Your task to perform on an android device: Clear the shopping cart on amazon. Add asus zenbook to the cart on amazon Image 0: 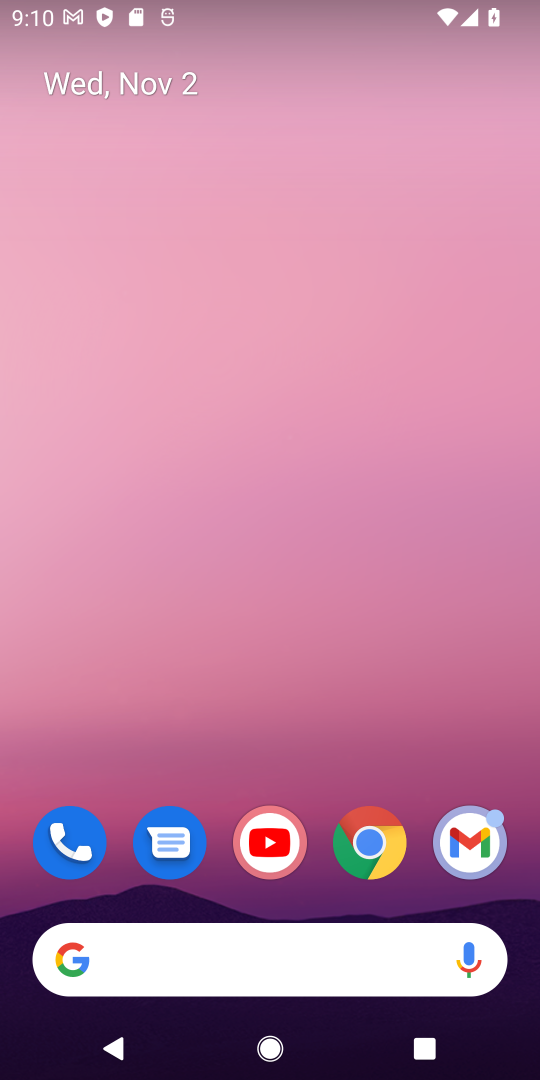
Step 0: drag from (189, 815) to (202, 96)
Your task to perform on an android device: Clear the shopping cart on amazon. Add asus zenbook to the cart on amazon Image 1: 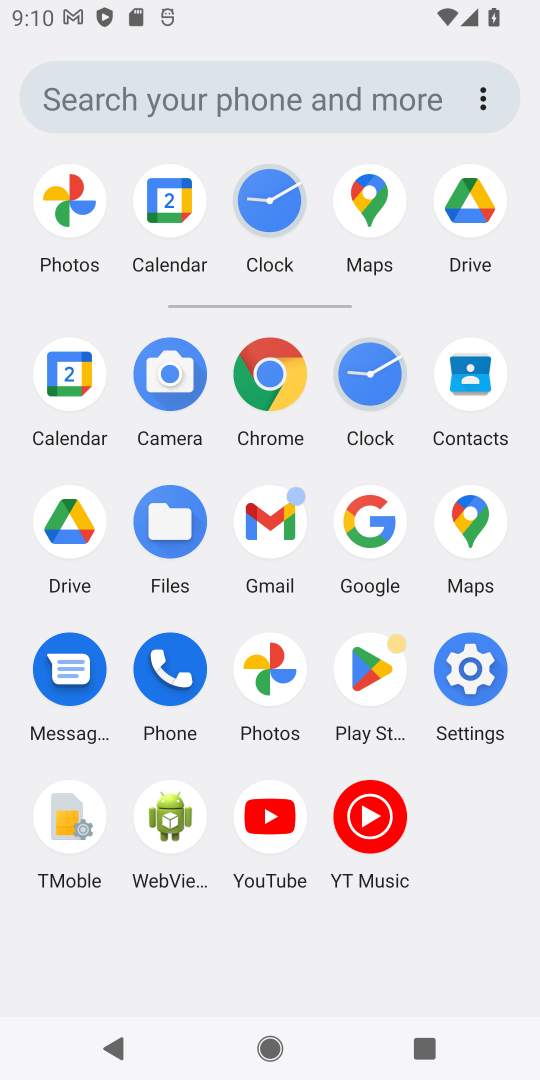
Step 1: click (362, 519)
Your task to perform on an android device: Clear the shopping cart on amazon. Add asus zenbook to the cart on amazon Image 2: 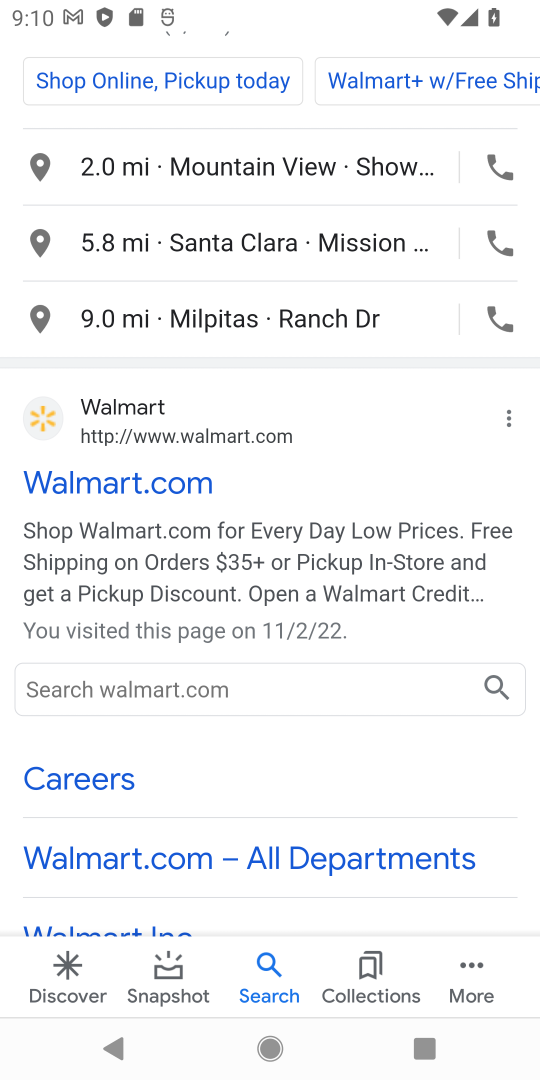
Step 2: drag from (183, 223) to (97, 906)
Your task to perform on an android device: Clear the shopping cart on amazon. Add asus zenbook to the cart on amazon Image 3: 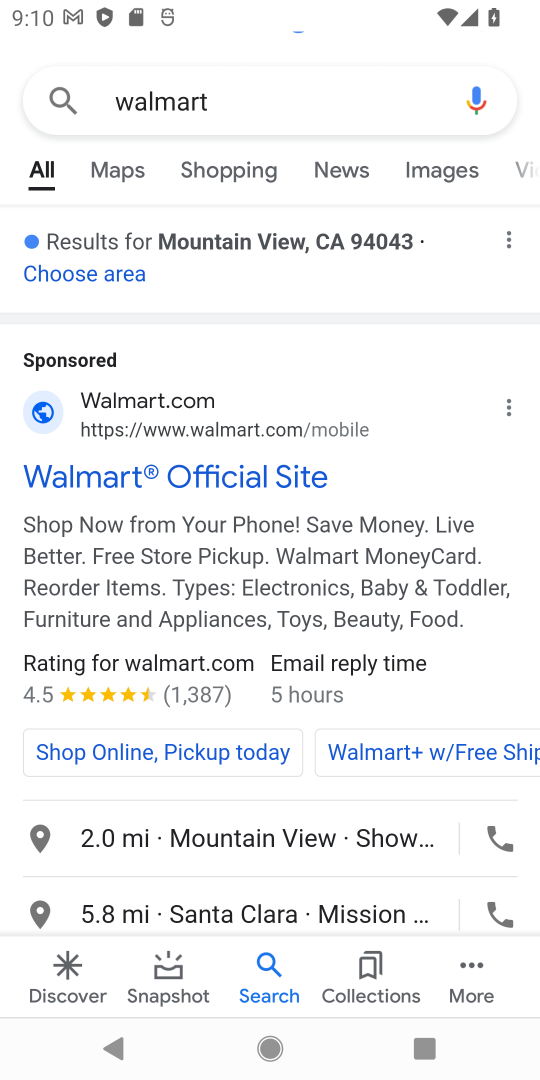
Step 3: click (243, 69)
Your task to perform on an android device: Clear the shopping cart on amazon. Add asus zenbook to the cart on amazon Image 4: 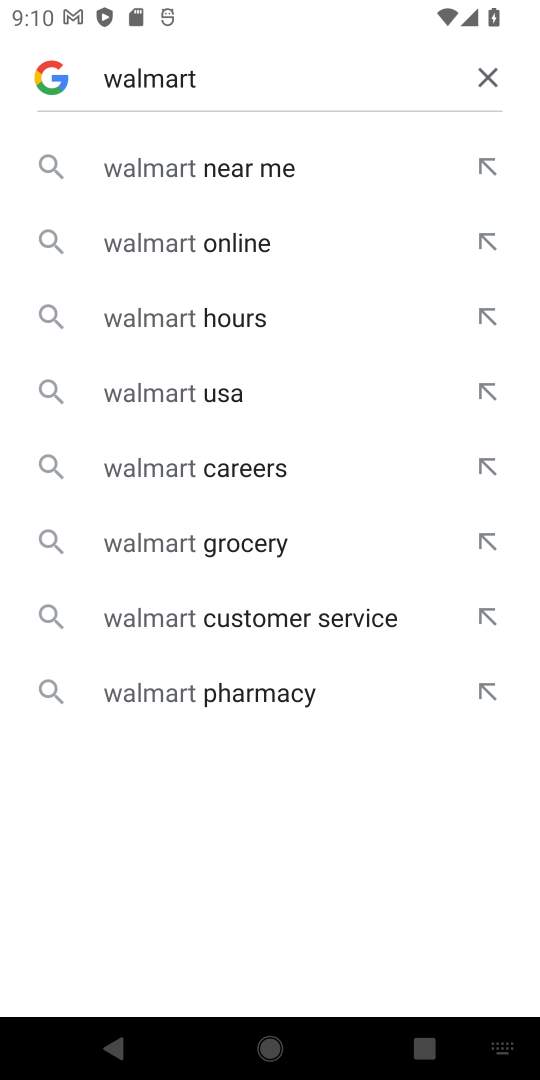
Step 4: click (484, 73)
Your task to perform on an android device: Clear the shopping cart on amazon. Add asus zenbook to the cart on amazon Image 5: 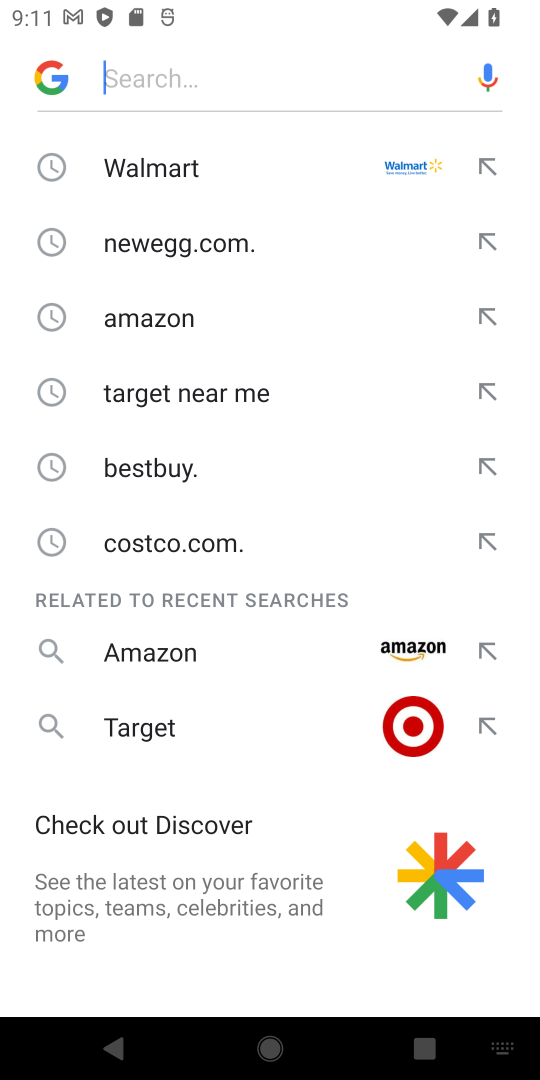
Step 5: click (221, 77)
Your task to perform on an android device: Clear the shopping cart on amazon. Add asus zenbook to the cart on amazon Image 6: 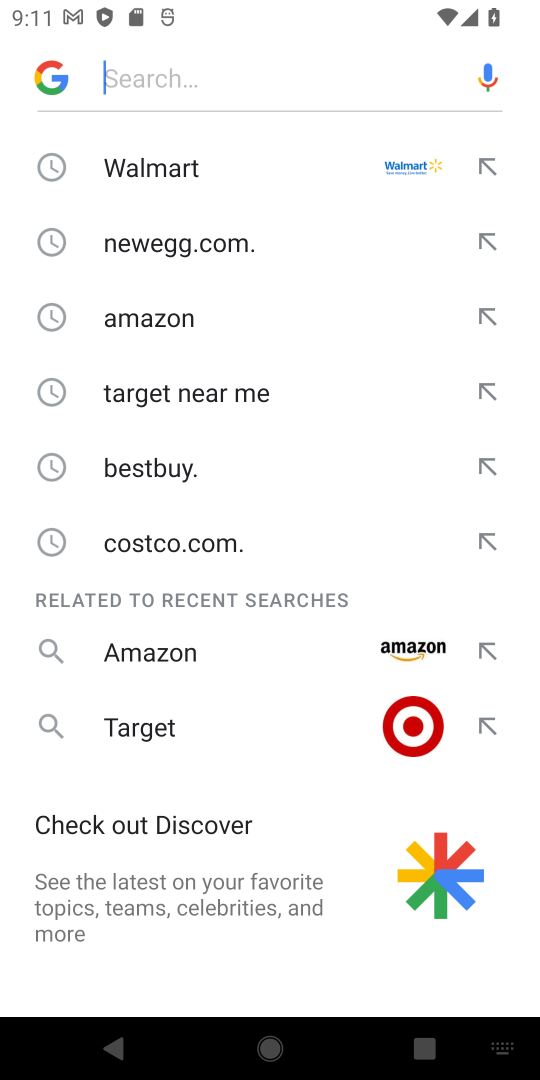
Step 6: type "amazon "
Your task to perform on an android device: Clear the shopping cart on amazon. Add asus zenbook to the cart on amazon Image 7: 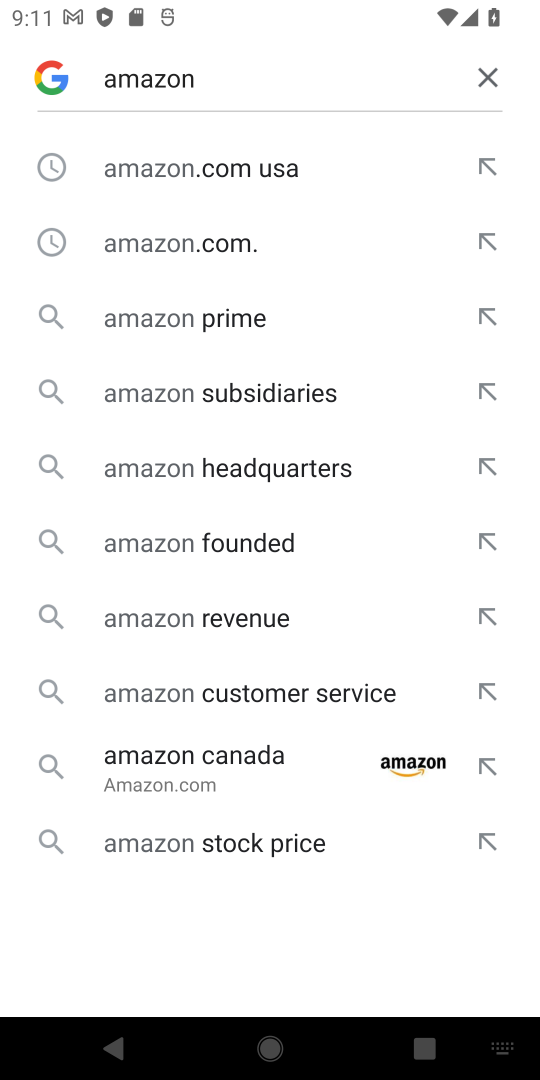
Step 7: click (167, 246)
Your task to perform on an android device: Clear the shopping cart on amazon. Add asus zenbook to the cart on amazon Image 8: 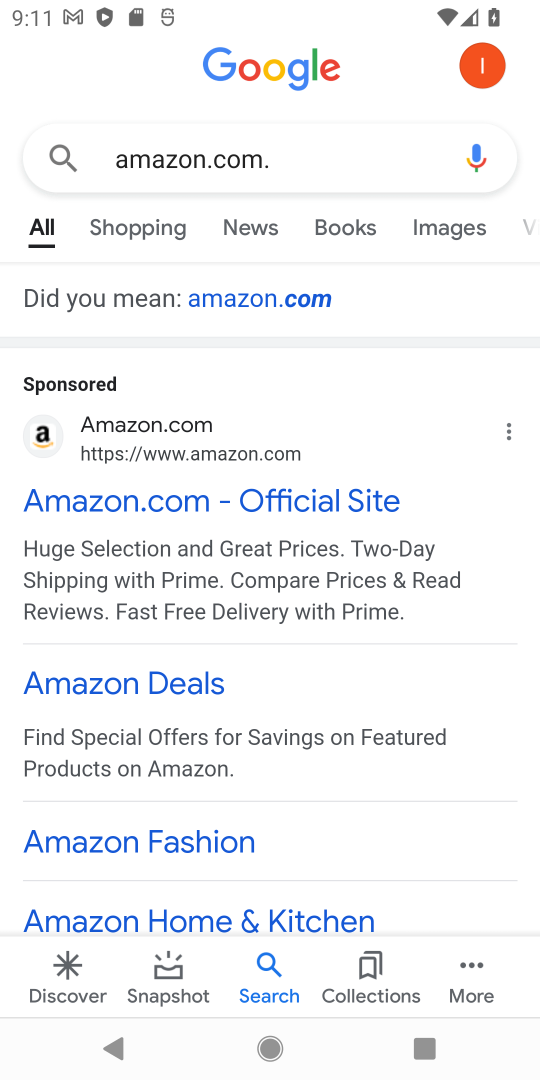
Step 8: click (30, 433)
Your task to perform on an android device: Clear the shopping cart on amazon. Add asus zenbook to the cart on amazon Image 9: 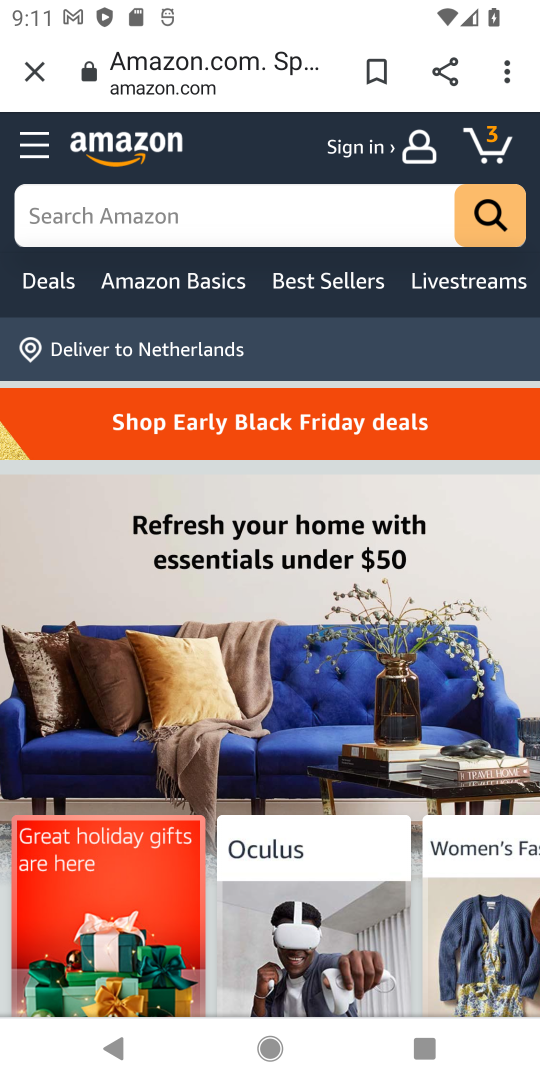
Step 9: click (251, 202)
Your task to perform on an android device: Clear the shopping cart on amazon. Add asus zenbook to the cart on amazon Image 10: 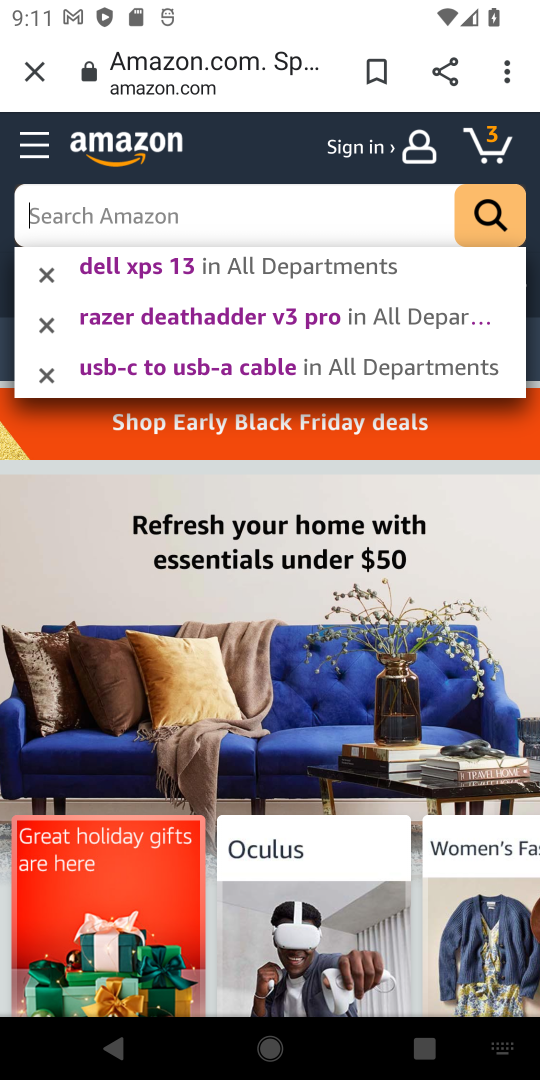
Step 10: click (173, 213)
Your task to perform on an android device: Clear the shopping cart on amazon. Add asus zenbook to the cart on amazon Image 11: 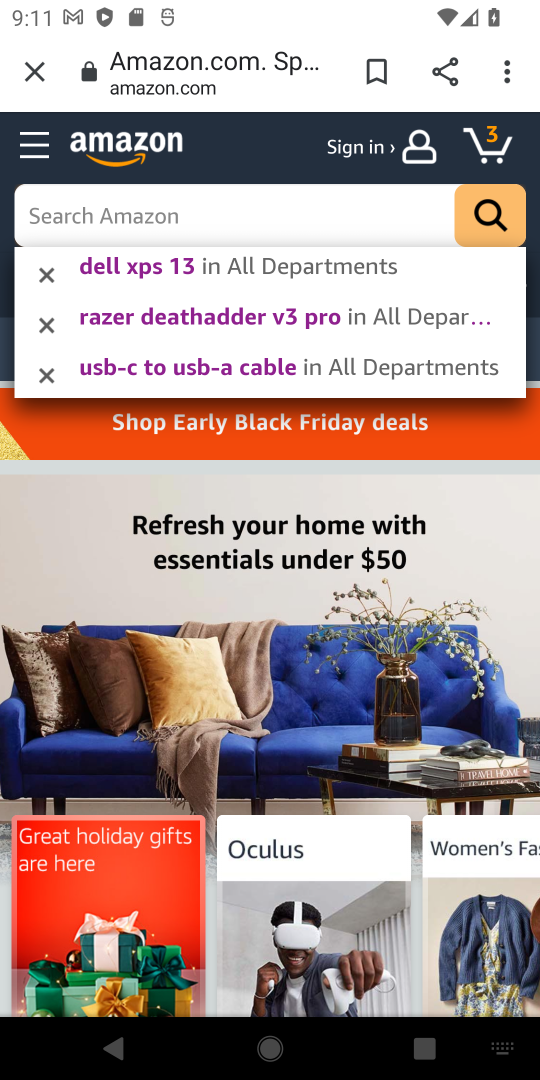
Step 11: type "asus zenbook "
Your task to perform on an android device: Clear the shopping cart on amazon. Add asus zenbook to the cart on amazon Image 12: 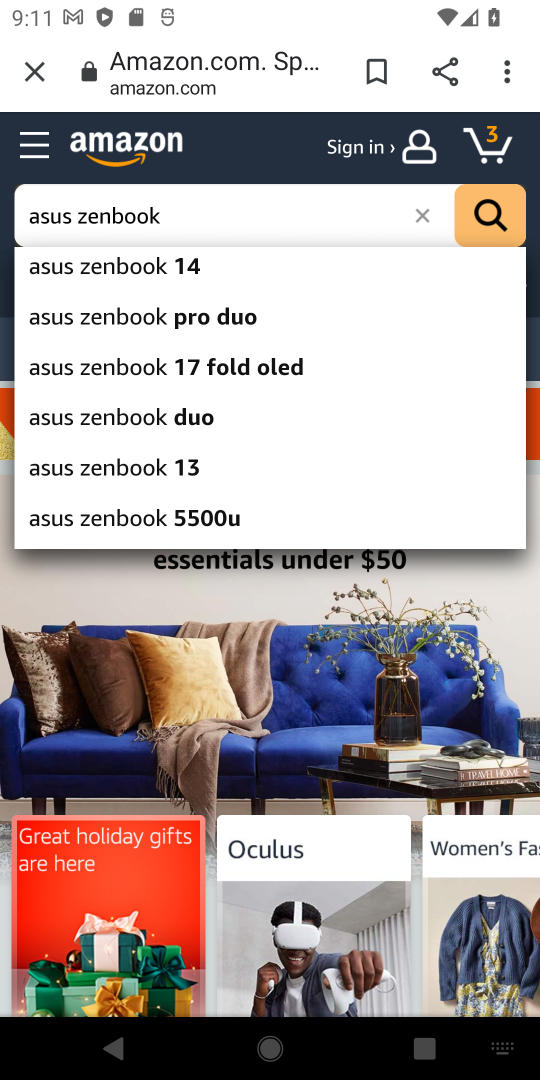
Step 12: click (130, 265)
Your task to perform on an android device: Clear the shopping cart on amazon. Add asus zenbook to the cart on amazon Image 13: 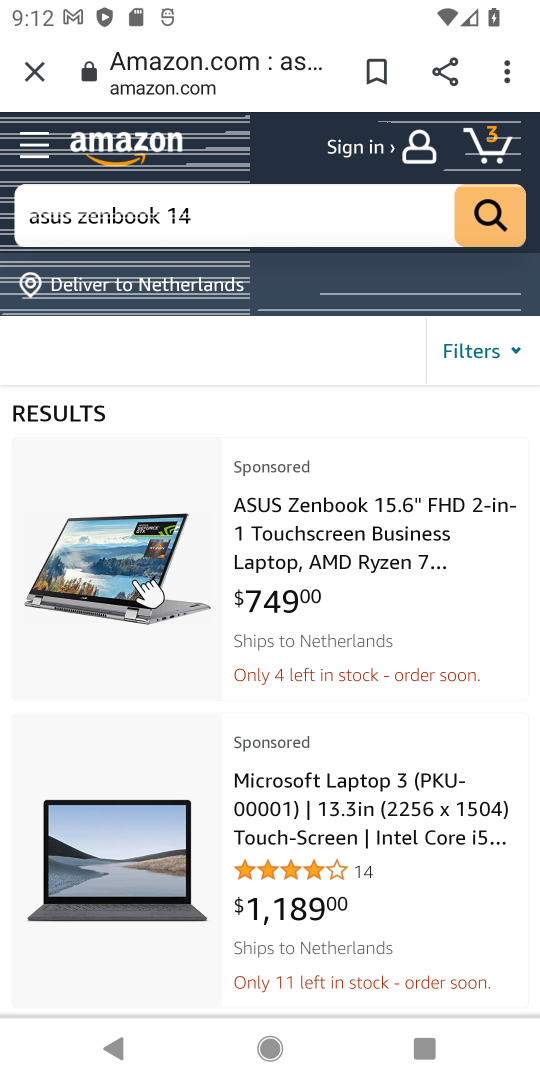
Step 13: click (268, 514)
Your task to perform on an android device: Clear the shopping cart on amazon. Add asus zenbook to the cart on amazon Image 14: 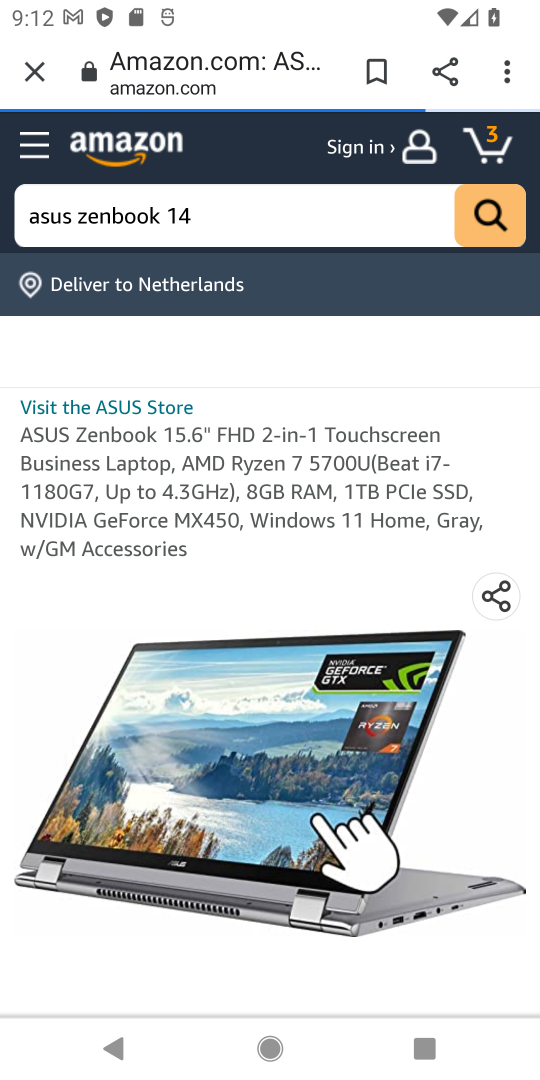
Step 14: drag from (299, 844) to (346, 383)
Your task to perform on an android device: Clear the shopping cart on amazon. Add asus zenbook to the cart on amazon Image 15: 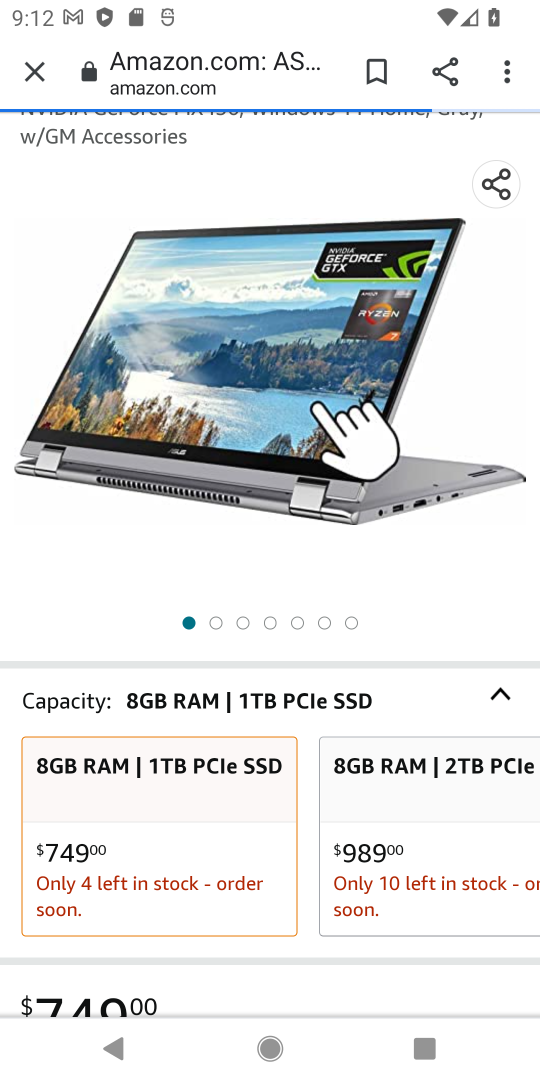
Step 15: drag from (241, 967) to (247, 402)
Your task to perform on an android device: Clear the shopping cart on amazon. Add asus zenbook to the cart on amazon Image 16: 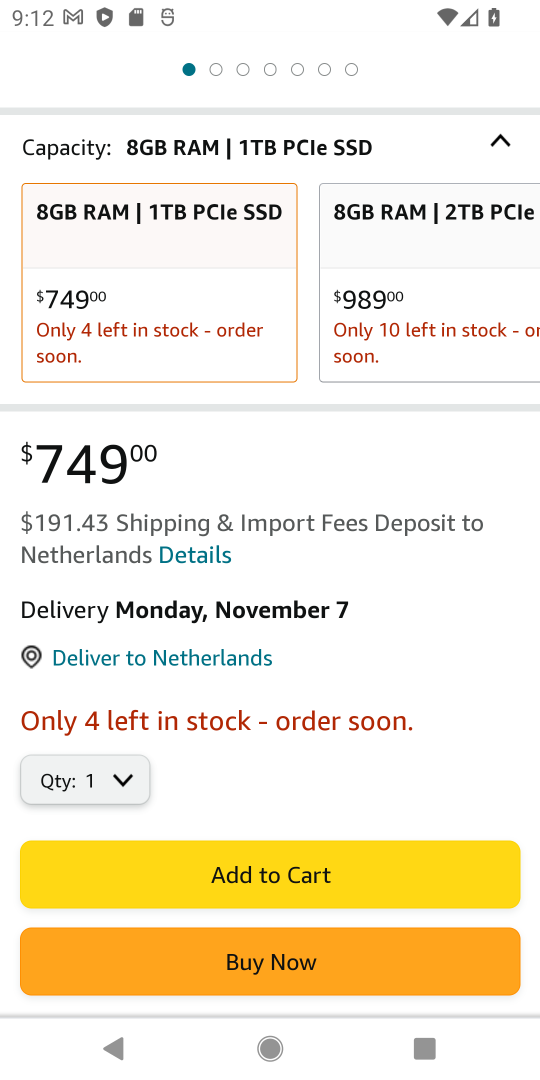
Step 16: click (187, 857)
Your task to perform on an android device: Clear the shopping cart on amazon. Add asus zenbook to the cart on amazon Image 17: 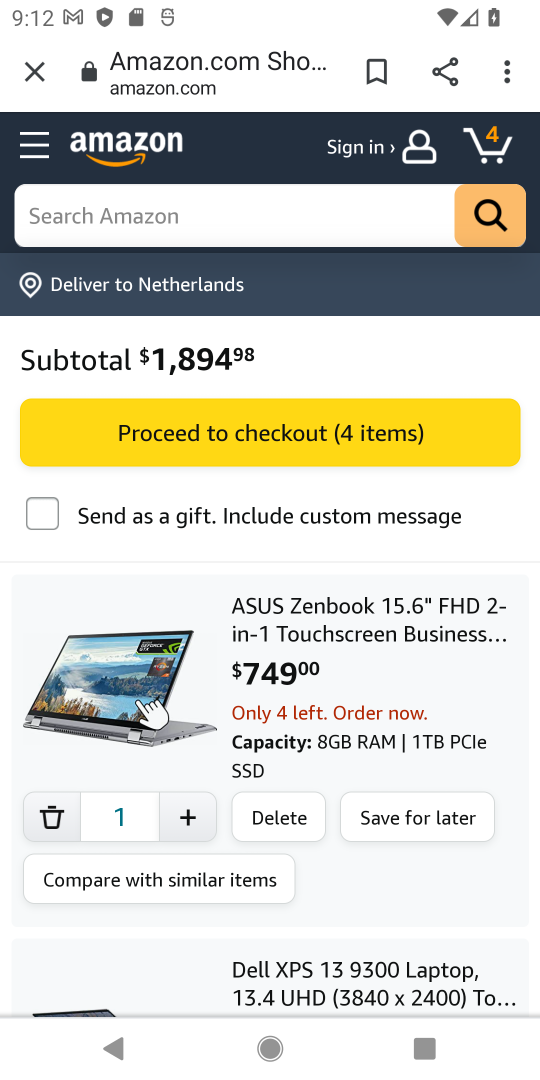
Step 17: task complete